Your task to perform on an android device: Open Maps and search for coffee Image 0: 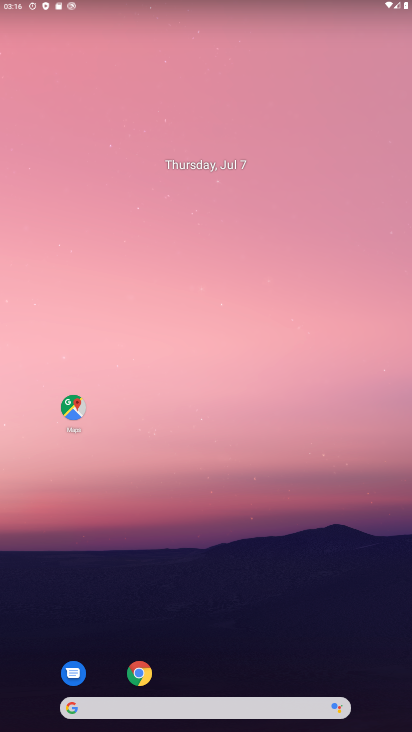
Step 0: drag from (217, 662) to (217, 196)
Your task to perform on an android device: Open Maps and search for coffee Image 1: 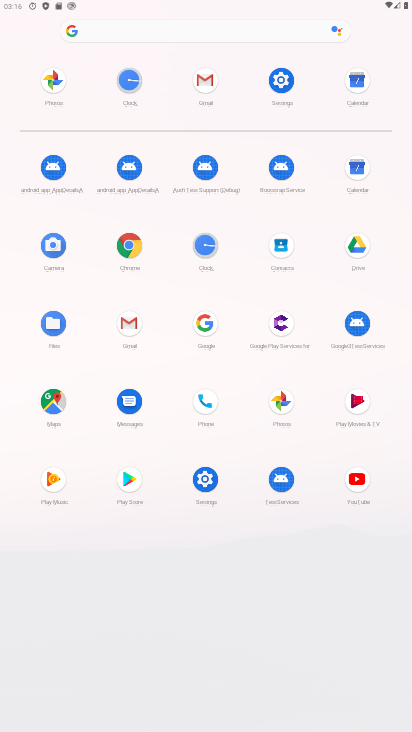
Step 1: click (57, 401)
Your task to perform on an android device: Open Maps and search for coffee Image 2: 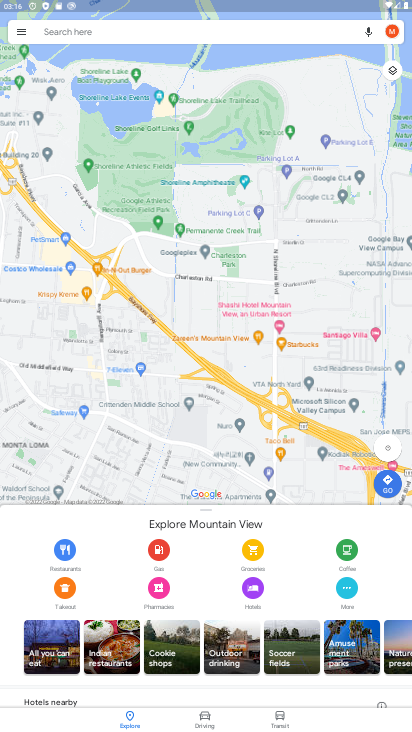
Step 2: click (153, 25)
Your task to perform on an android device: Open Maps and search for coffee Image 3: 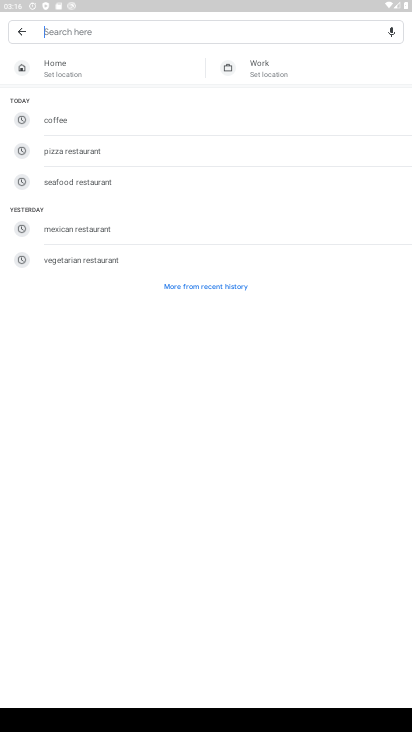
Step 3: type "coffee"
Your task to perform on an android device: Open Maps and search for coffee Image 4: 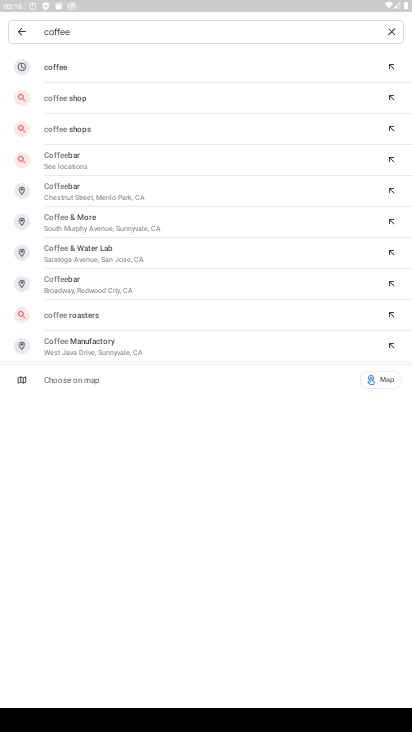
Step 4: click (113, 64)
Your task to perform on an android device: Open Maps and search for coffee Image 5: 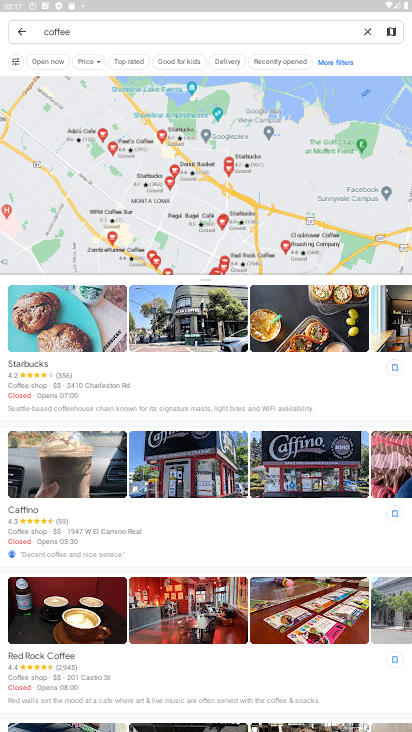
Step 5: task complete